Your task to perform on an android device: turn pop-ups on in chrome Image 0: 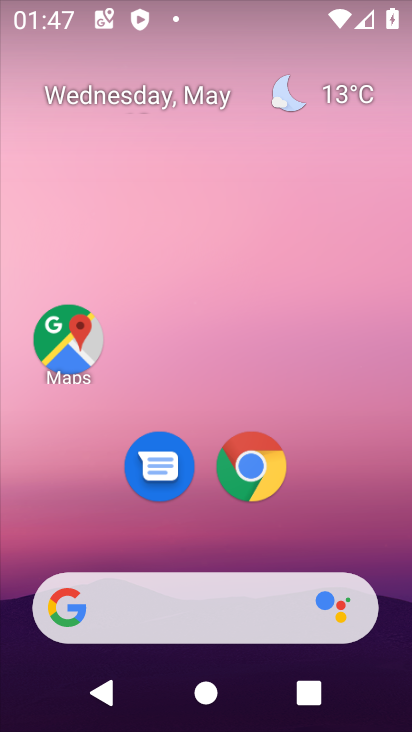
Step 0: press home button
Your task to perform on an android device: turn pop-ups on in chrome Image 1: 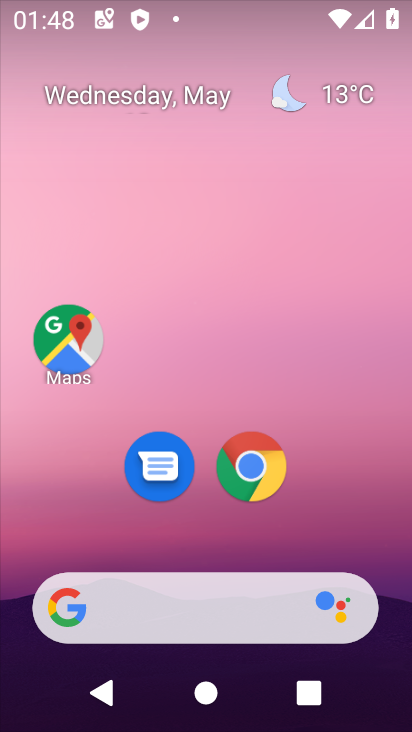
Step 1: click (244, 482)
Your task to perform on an android device: turn pop-ups on in chrome Image 2: 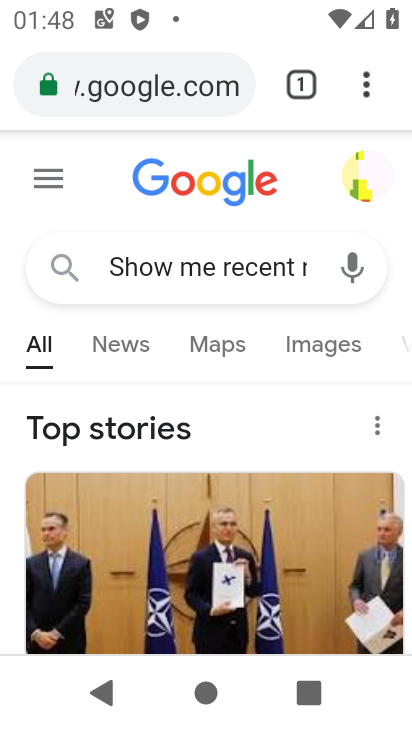
Step 2: drag from (364, 70) to (120, 518)
Your task to perform on an android device: turn pop-ups on in chrome Image 3: 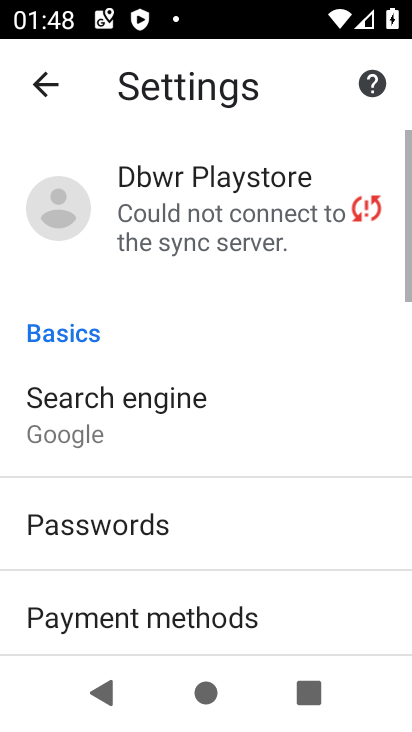
Step 3: drag from (227, 610) to (172, 95)
Your task to perform on an android device: turn pop-ups on in chrome Image 4: 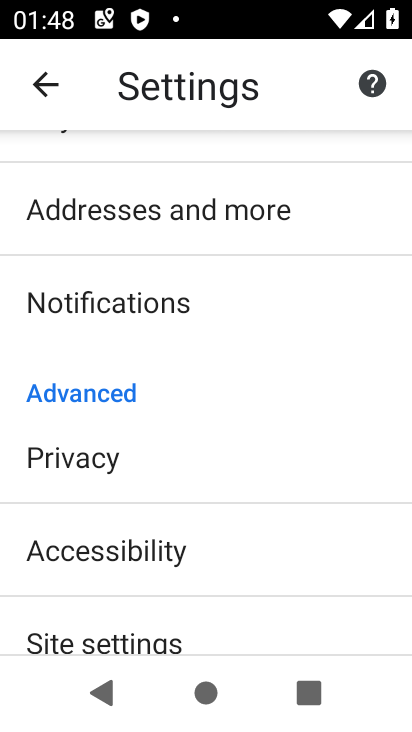
Step 4: click (181, 637)
Your task to perform on an android device: turn pop-ups on in chrome Image 5: 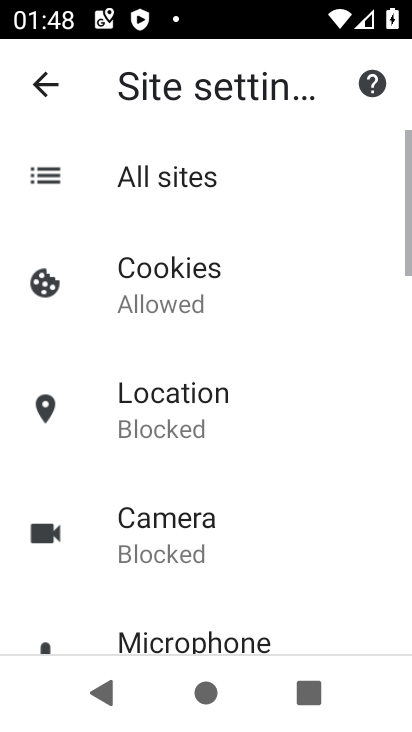
Step 5: drag from (181, 637) to (181, 147)
Your task to perform on an android device: turn pop-ups on in chrome Image 6: 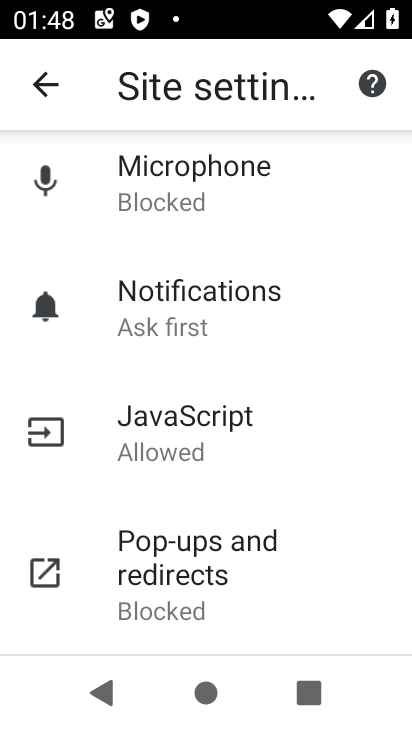
Step 6: click (196, 534)
Your task to perform on an android device: turn pop-ups on in chrome Image 7: 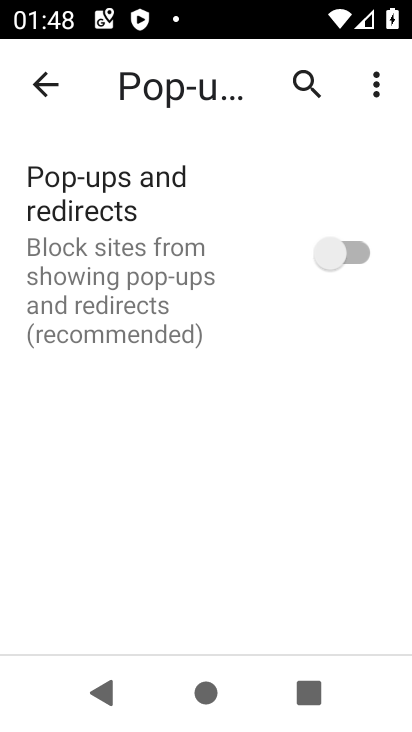
Step 7: click (301, 238)
Your task to perform on an android device: turn pop-ups on in chrome Image 8: 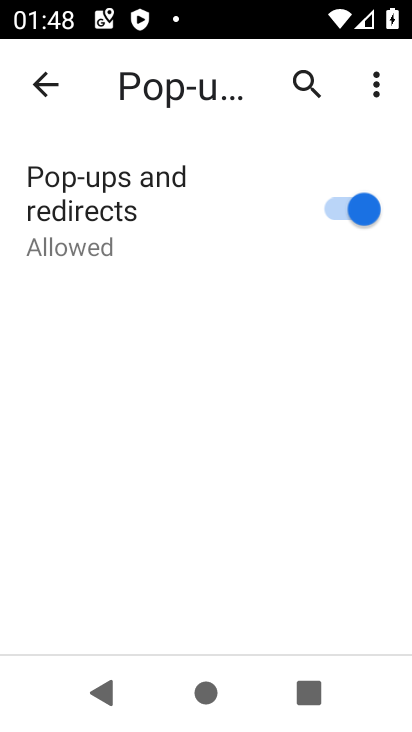
Step 8: task complete